Your task to perform on an android device: Do I have any events tomorrow? Image 0: 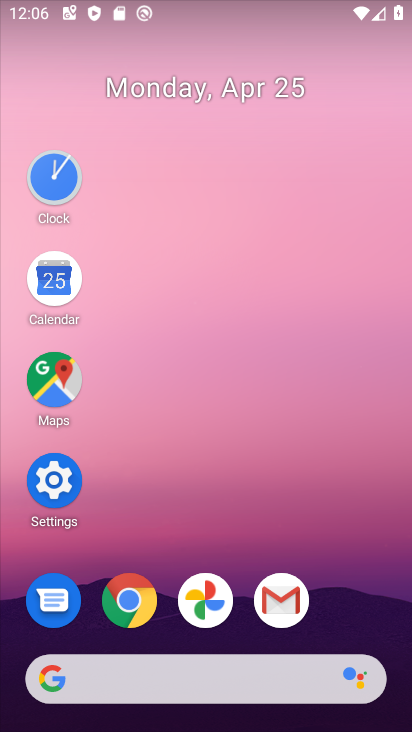
Step 0: click (42, 273)
Your task to perform on an android device: Do I have any events tomorrow? Image 1: 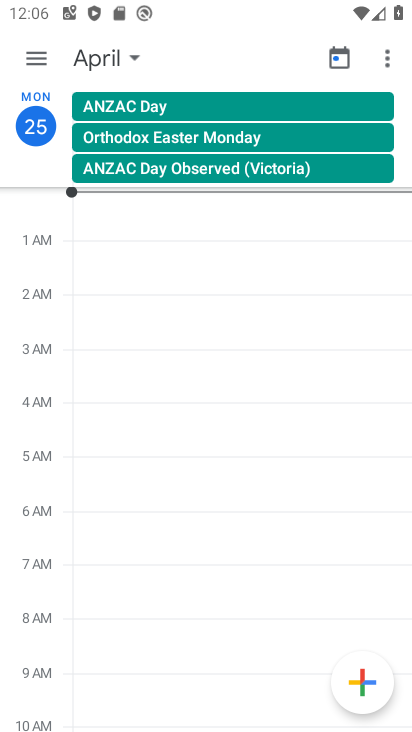
Step 1: click (125, 54)
Your task to perform on an android device: Do I have any events tomorrow? Image 2: 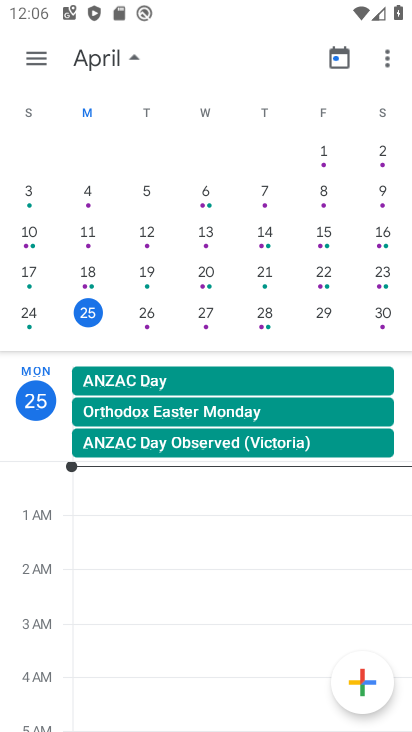
Step 2: task complete